Your task to perform on an android device: Open Chrome and go to settings Image 0: 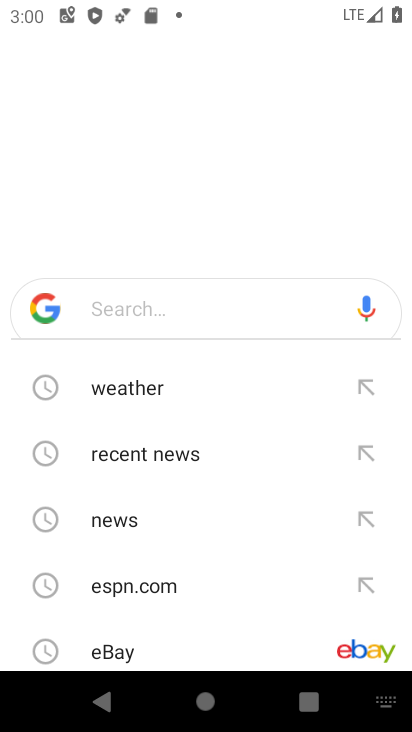
Step 0: press home button
Your task to perform on an android device: Open Chrome and go to settings Image 1: 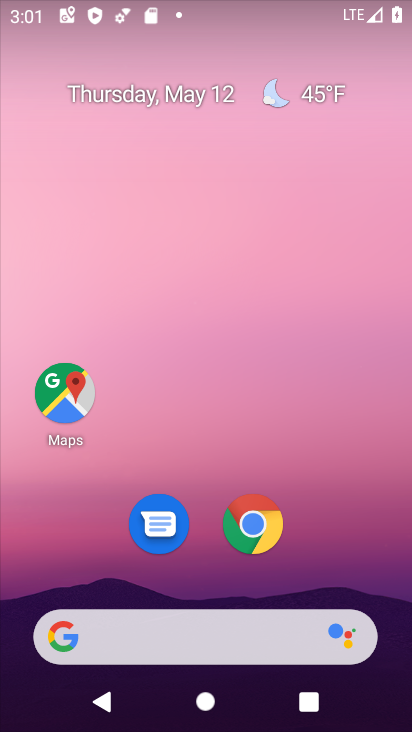
Step 1: click (261, 510)
Your task to perform on an android device: Open Chrome and go to settings Image 2: 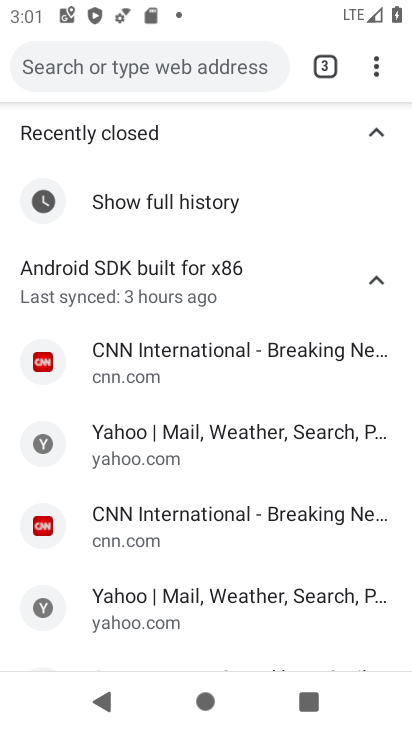
Step 2: click (375, 69)
Your task to perform on an android device: Open Chrome and go to settings Image 3: 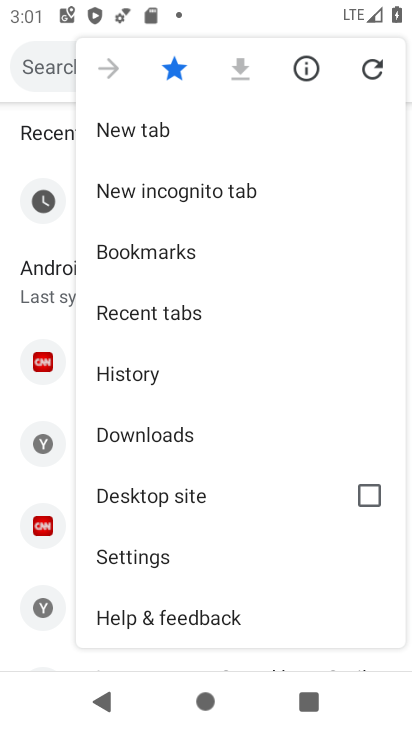
Step 3: click (187, 560)
Your task to perform on an android device: Open Chrome and go to settings Image 4: 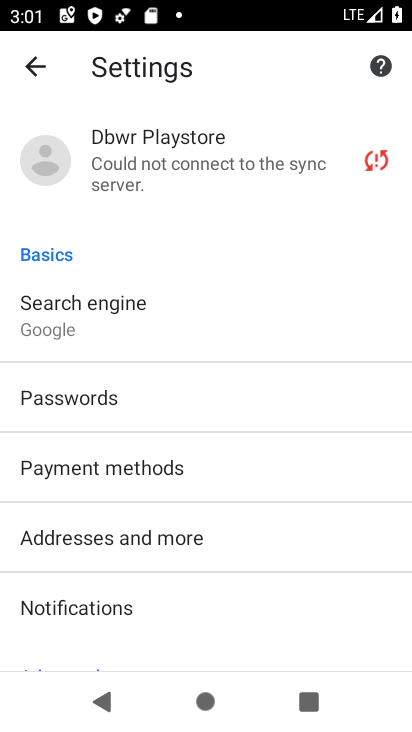
Step 4: task complete